Your task to perform on an android device: delete the emails in spam in the gmail app Image 0: 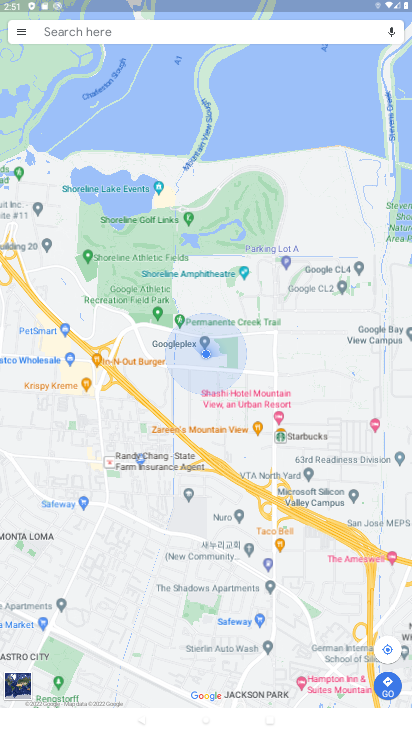
Step 0: press home button
Your task to perform on an android device: delete the emails in spam in the gmail app Image 1: 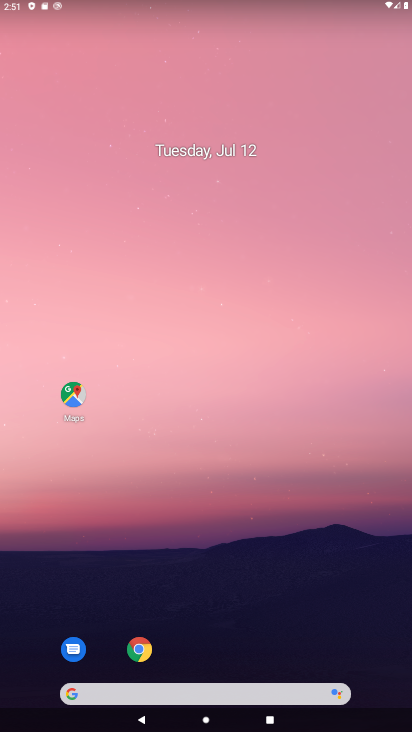
Step 1: drag from (209, 690) to (226, 267)
Your task to perform on an android device: delete the emails in spam in the gmail app Image 2: 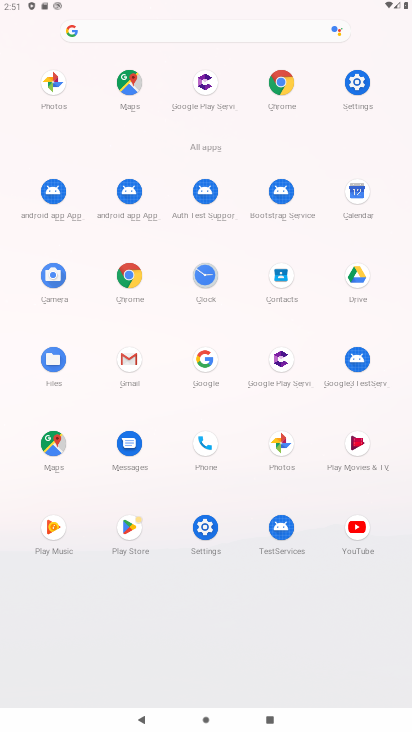
Step 2: click (142, 358)
Your task to perform on an android device: delete the emails in spam in the gmail app Image 3: 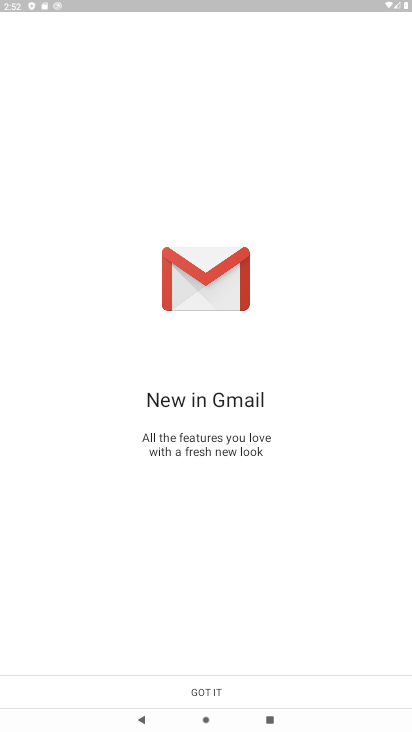
Step 3: click (200, 682)
Your task to perform on an android device: delete the emails in spam in the gmail app Image 4: 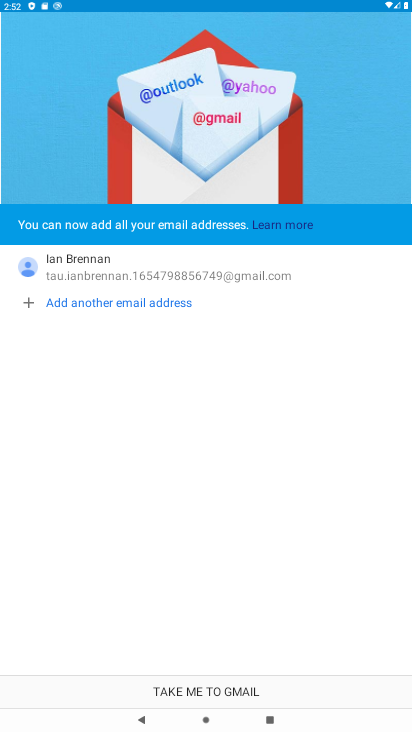
Step 4: click (200, 682)
Your task to perform on an android device: delete the emails in spam in the gmail app Image 5: 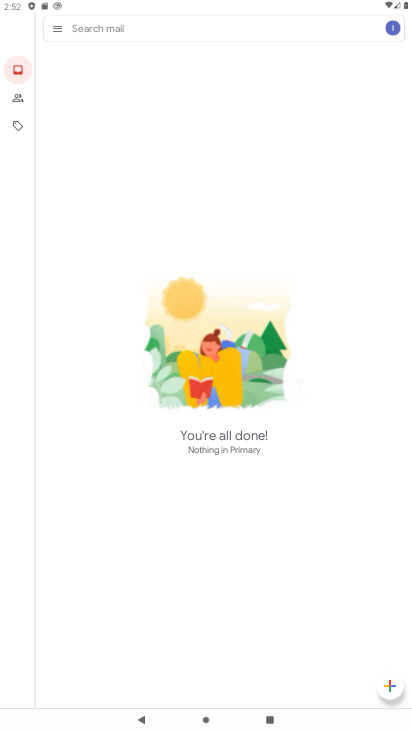
Step 5: click (54, 33)
Your task to perform on an android device: delete the emails in spam in the gmail app Image 6: 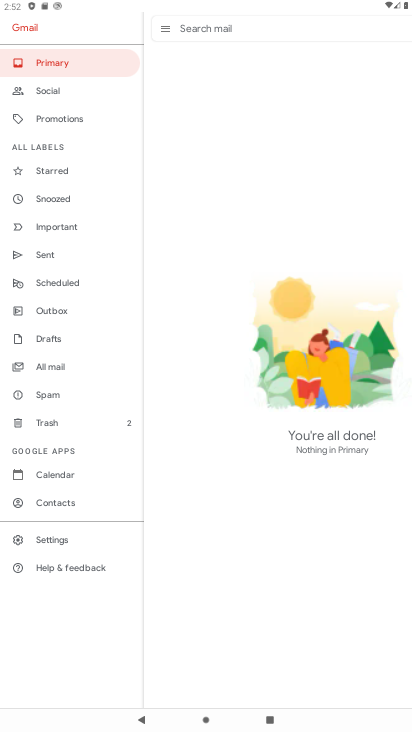
Step 6: click (61, 401)
Your task to perform on an android device: delete the emails in spam in the gmail app Image 7: 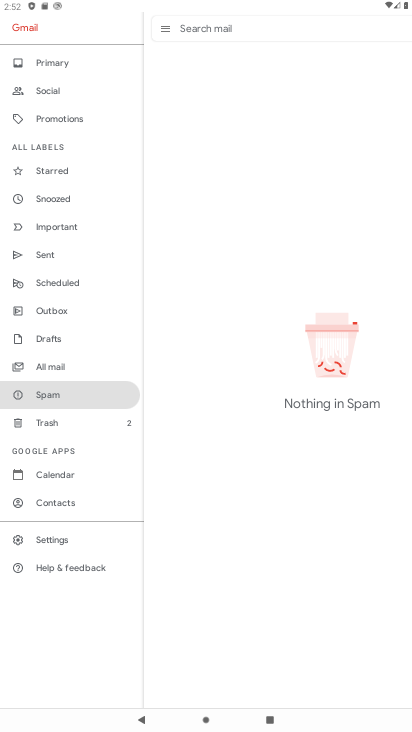
Step 7: task complete